Your task to perform on an android device: change the clock display to analog Image 0: 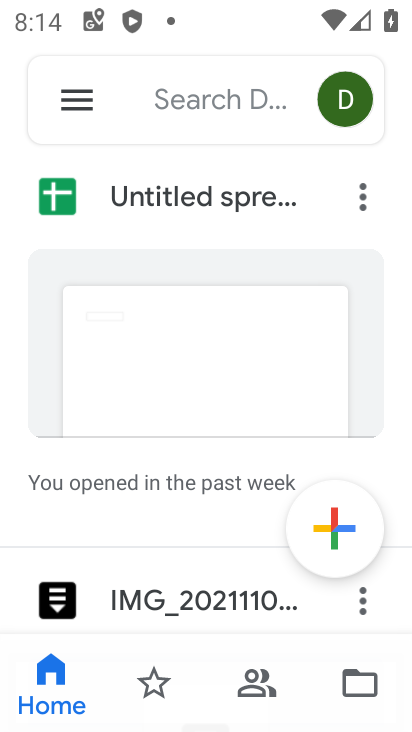
Step 0: press home button
Your task to perform on an android device: change the clock display to analog Image 1: 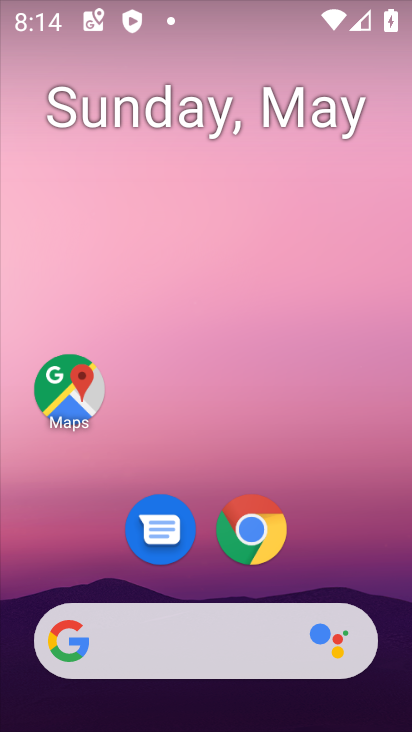
Step 1: drag from (383, 591) to (358, 11)
Your task to perform on an android device: change the clock display to analog Image 2: 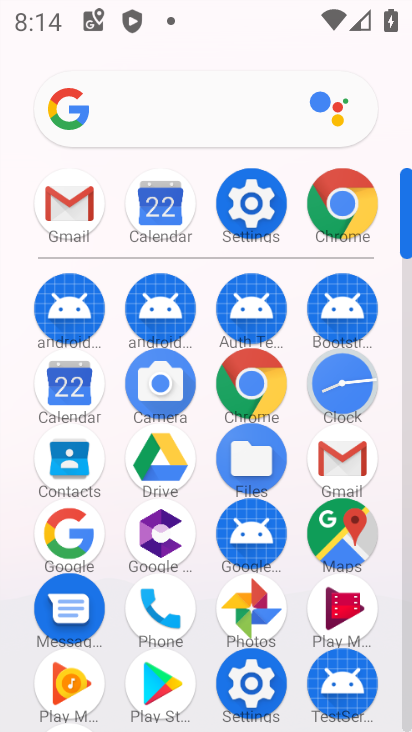
Step 2: click (343, 386)
Your task to perform on an android device: change the clock display to analog Image 3: 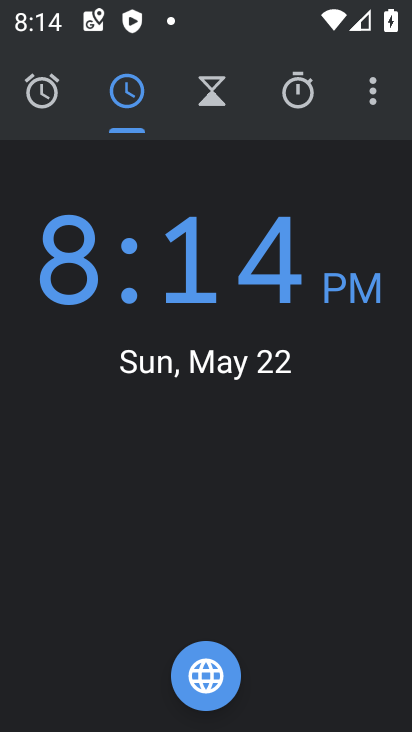
Step 3: click (374, 91)
Your task to perform on an android device: change the clock display to analog Image 4: 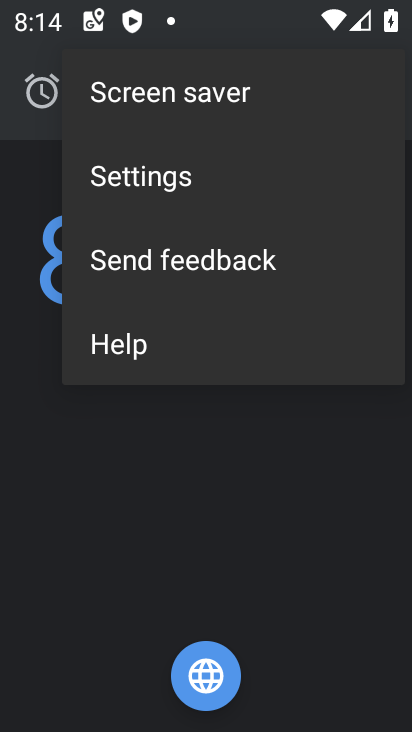
Step 4: click (152, 180)
Your task to perform on an android device: change the clock display to analog Image 5: 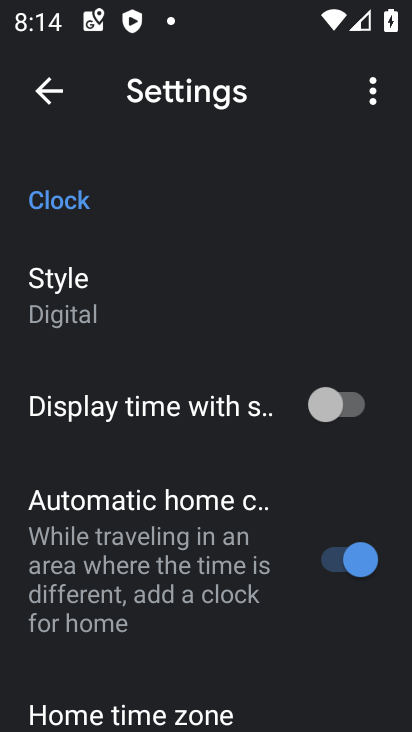
Step 5: click (60, 299)
Your task to perform on an android device: change the clock display to analog Image 6: 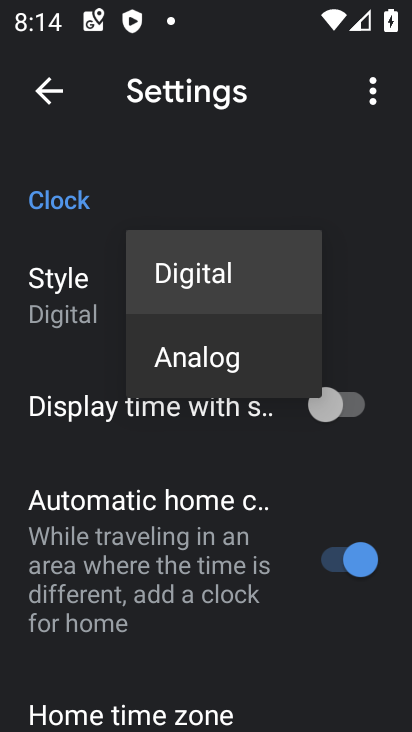
Step 6: click (180, 354)
Your task to perform on an android device: change the clock display to analog Image 7: 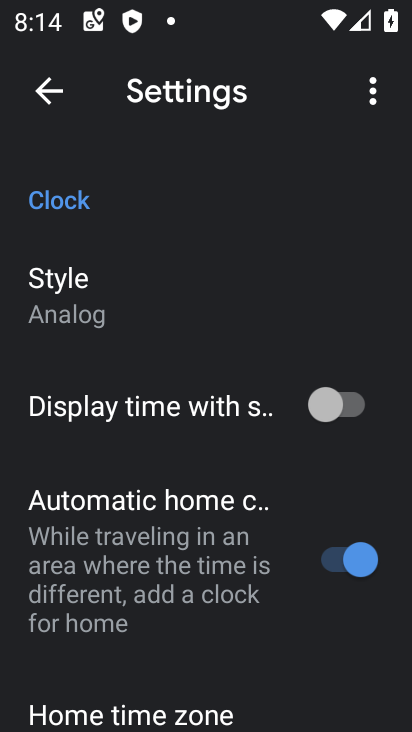
Step 7: task complete